Your task to perform on an android device: turn notification dots off Image 0: 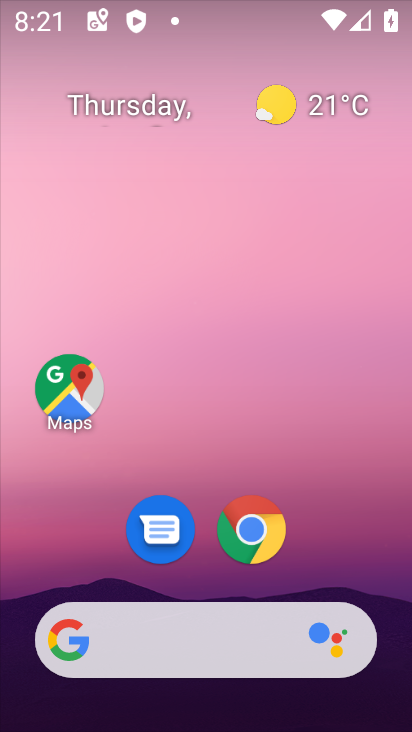
Step 0: drag from (202, 664) to (200, 0)
Your task to perform on an android device: turn notification dots off Image 1: 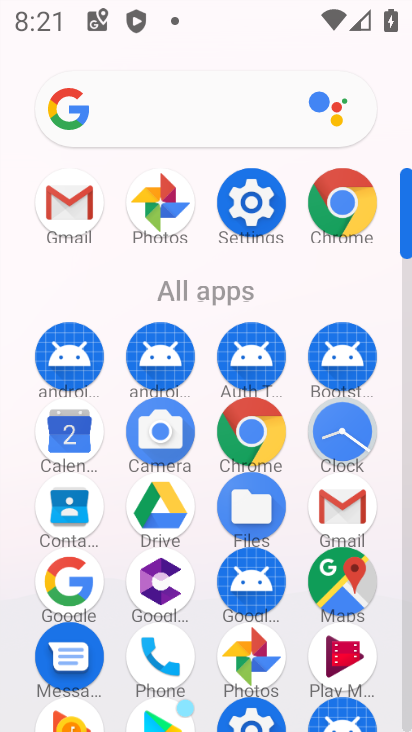
Step 1: click (245, 198)
Your task to perform on an android device: turn notification dots off Image 2: 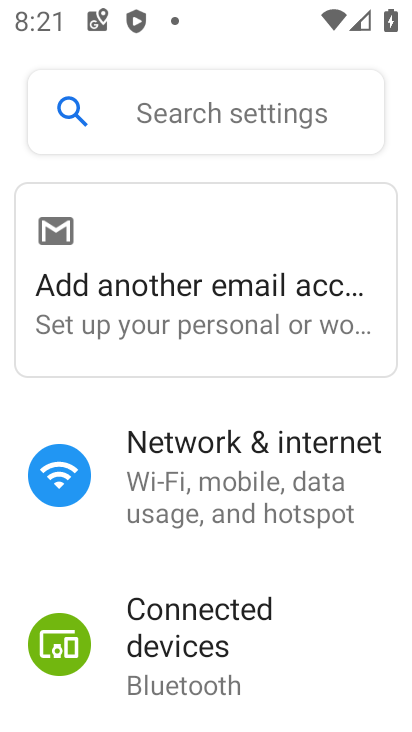
Step 2: drag from (220, 596) to (150, 86)
Your task to perform on an android device: turn notification dots off Image 3: 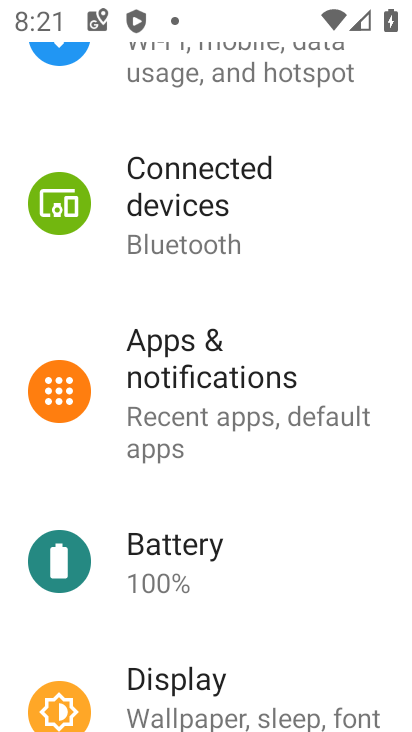
Step 3: click (250, 427)
Your task to perform on an android device: turn notification dots off Image 4: 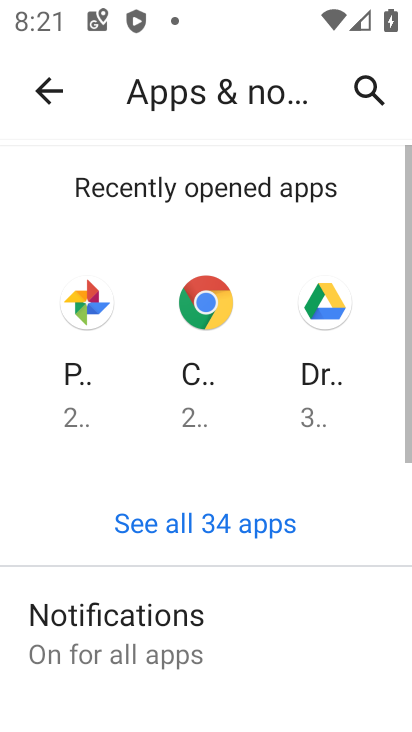
Step 4: drag from (304, 662) to (204, 65)
Your task to perform on an android device: turn notification dots off Image 5: 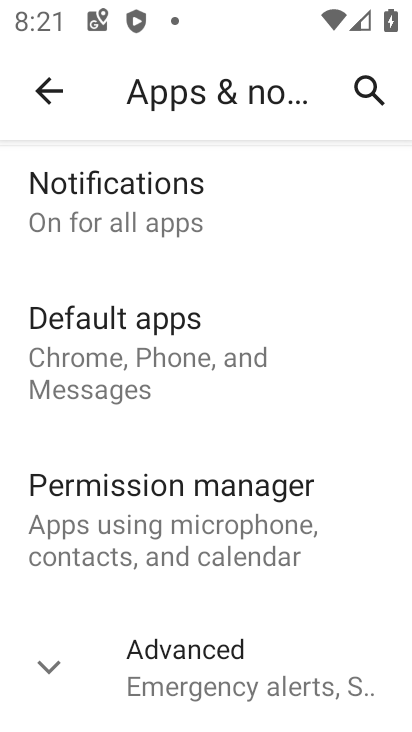
Step 5: click (206, 200)
Your task to perform on an android device: turn notification dots off Image 6: 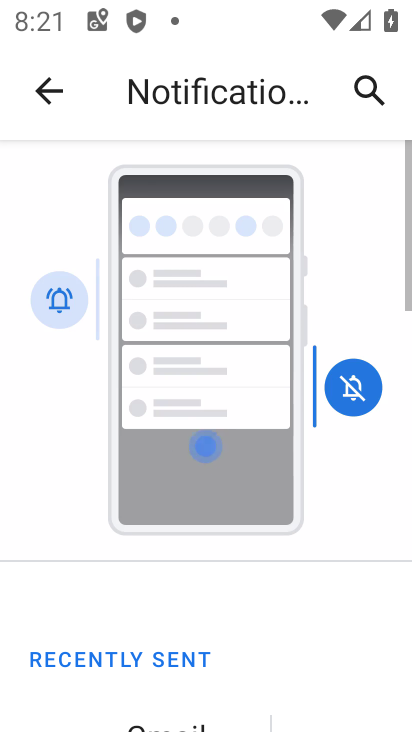
Step 6: drag from (299, 592) to (182, 42)
Your task to perform on an android device: turn notification dots off Image 7: 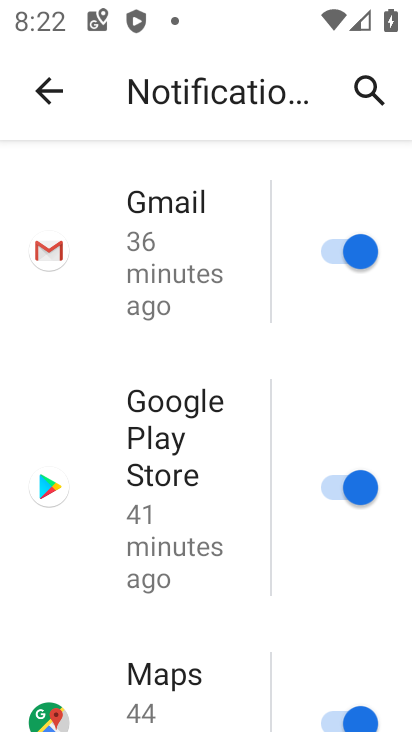
Step 7: drag from (251, 625) to (189, 3)
Your task to perform on an android device: turn notification dots off Image 8: 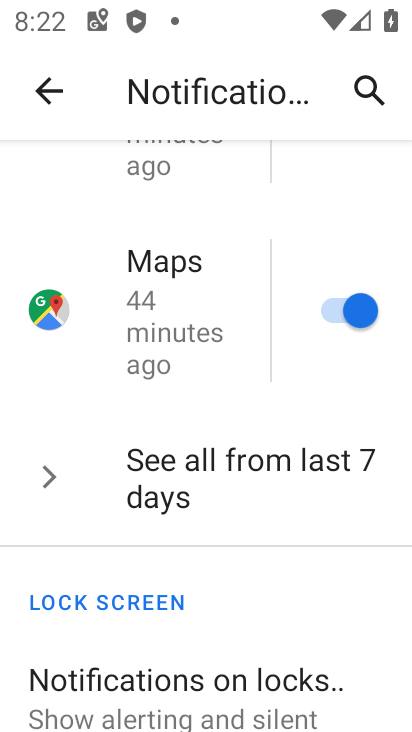
Step 8: drag from (271, 630) to (202, 127)
Your task to perform on an android device: turn notification dots off Image 9: 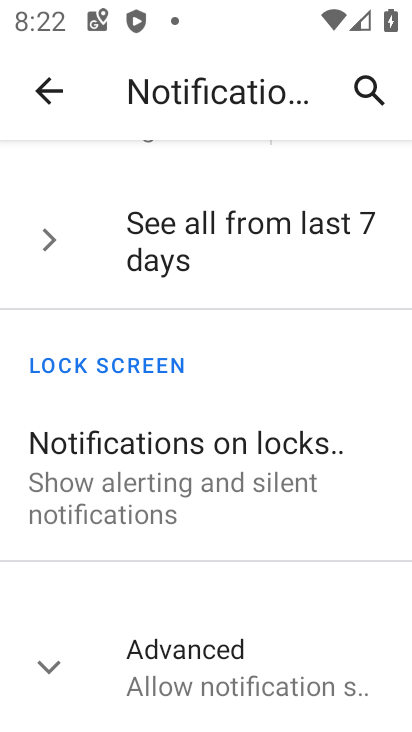
Step 9: click (233, 678)
Your task to perform on an android device: turn notification dots off Image 10: 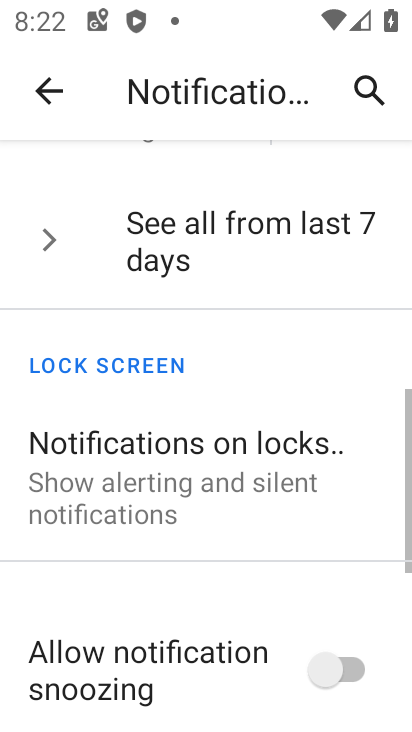
Step 10: drag from (304, 600) to (166, 10)
Your task to perform on an android device: turn notification dots off Image 11: 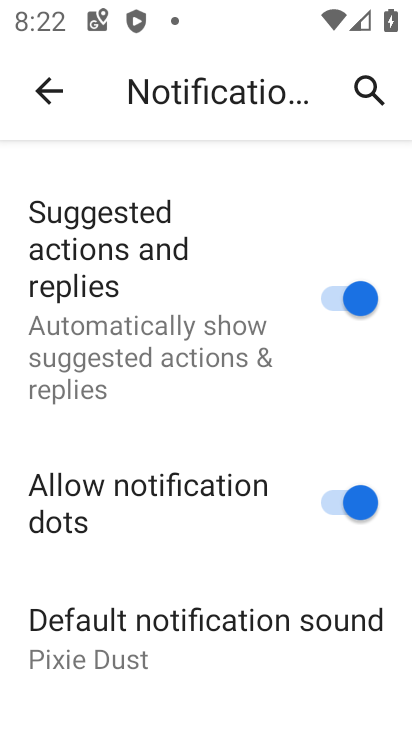
Step 11: click (353, 511)
Your task to perform on an android device: turn notification dots off Image 12: 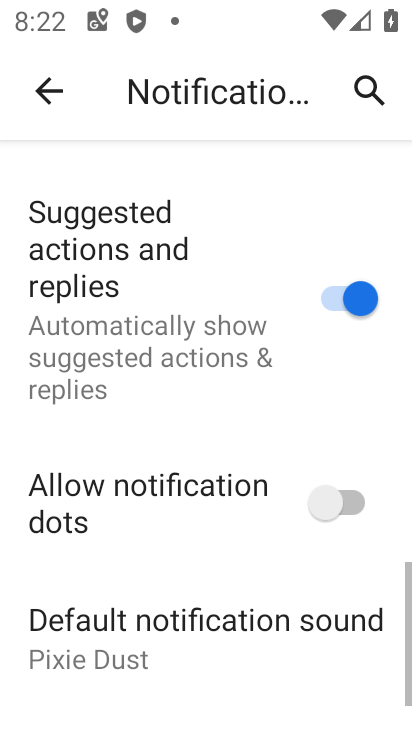
Step 12: task complete